Your task to perform on an android device: open app "Walmart Shopping & Grocery" (install if not already installed) and go to login screen Image 0: 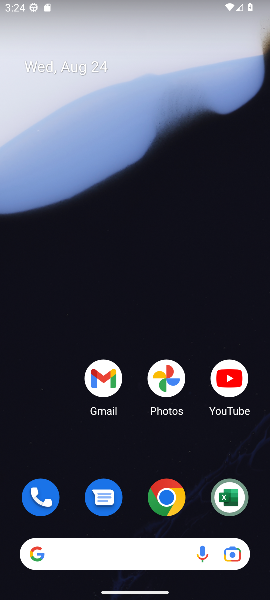
Step 0: drag from (119, 552) to (171, 142)
Your task to perform on an android device: open app "Walmart Shopping & Grocery" (install if not already installed) and go to login screen Image 1: 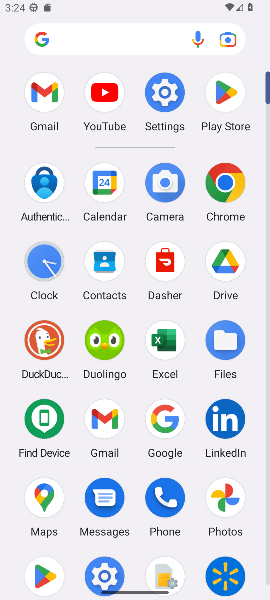
Step 1: click (230, 93)
Your task to perform on an android device: open app "Walmart Shopping & Grocery" (install if not already installed) and go to login screen Image 2: 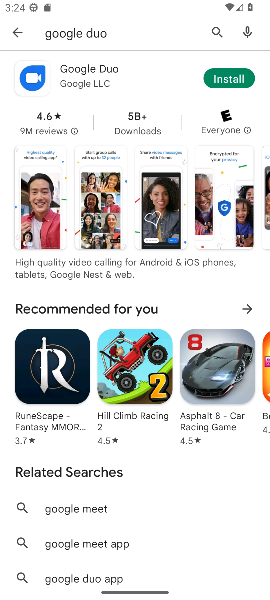
Step 2: press back button
Your task to perform on an android device: open app "Walmart Shopping & Grocery" (install if not already installed) and go to login screen Image 3: 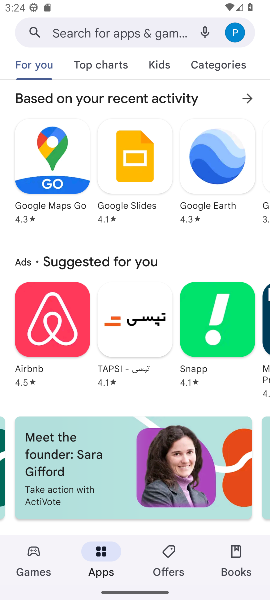
Step 3: click (170, 32)
Your task to perform on an android device: open app "Walmart Shopping & Grocery" (install if not already installed) and go to login screen Image 4: 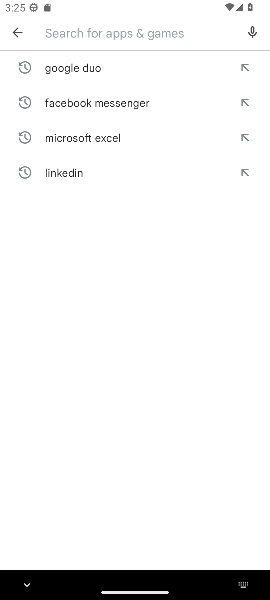
Step 4: type "Walmart Shopping & Grocery"
Your task to perform on an android device: open app "Walmart Shopping & Grocery" (install if not already installed) and go to login screen Image 5: 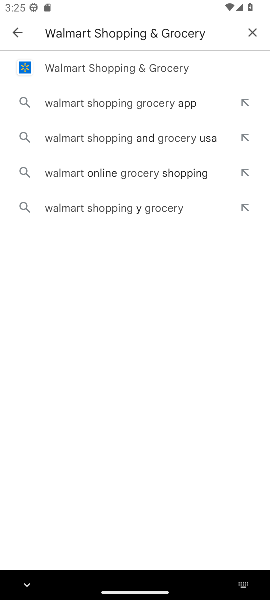
Step 5: click (176, 74)
Your task to perform on an android device: open app "Walmart Shopping & Grocery" (install if not already installed) and go to login screen Image 6: 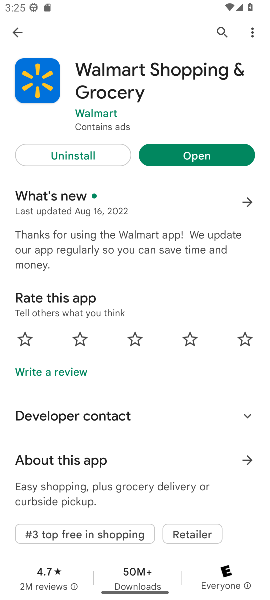
Step 6: click (200, 154)
Your task to perform on an android device: open app "Walmart Shopping & Grocery" (install if not already installed) and go to login screen Image 7: 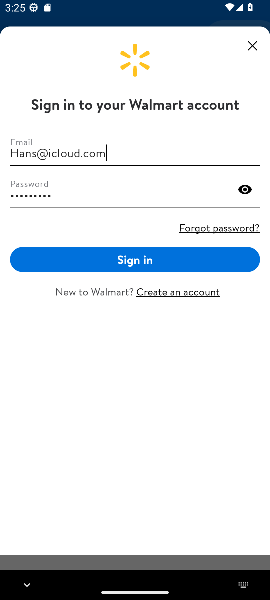
Step 7: task complete